Your task to perform on an android device: toggle translation in the chrome app Image 0: 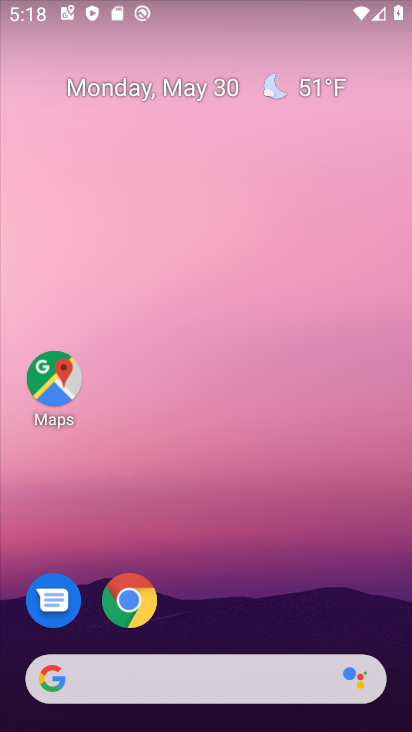
Step 0: drag from (157, 252) to (147, 42)
Your task to perform on an android device: toggle translation in the chrome app Image 1: 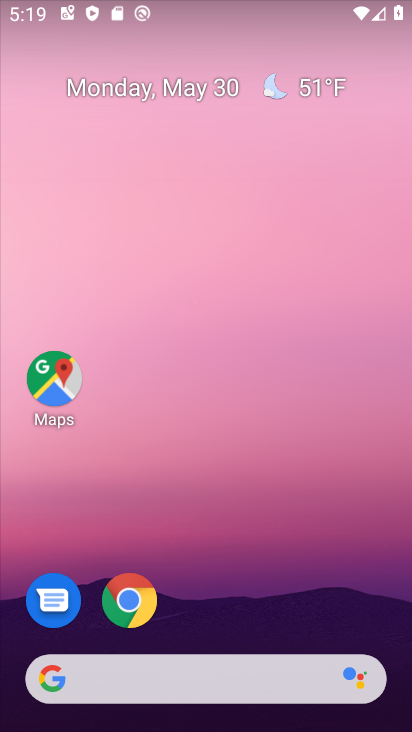
Step 1: drag from (232, 704) to (255, 6)
Your task to perform on an android device: toggle translation in the chrome app Image 2: 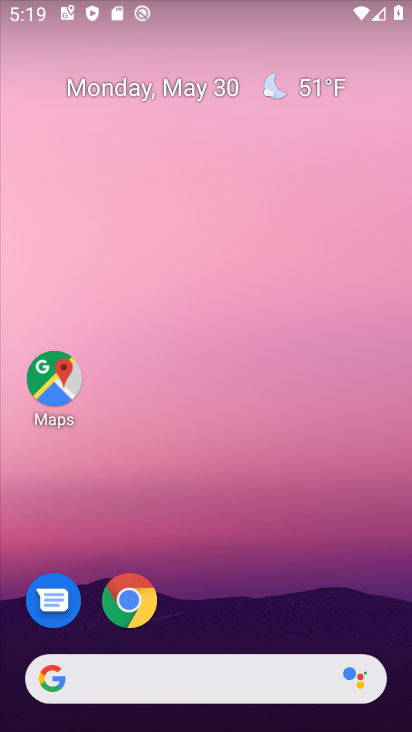
Step 2: drag from (199, 382) to (206, 21)
Your task to perform on an android device: toggle translation in the chrome app Image 3: 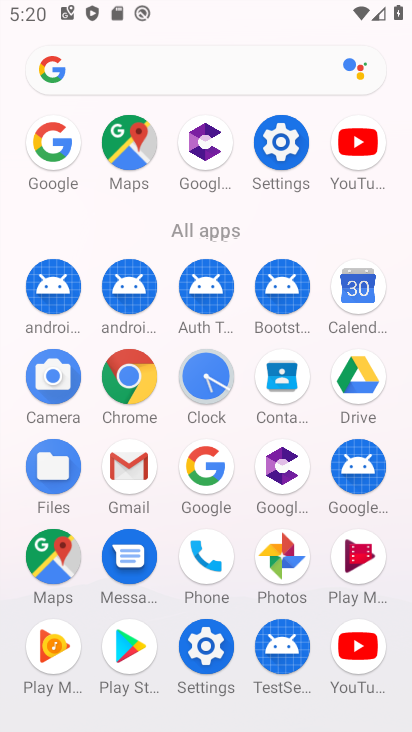
Step 3: click (124, 370)
Your task to perform on an android device: toggle translation in the chrome app Image 4: 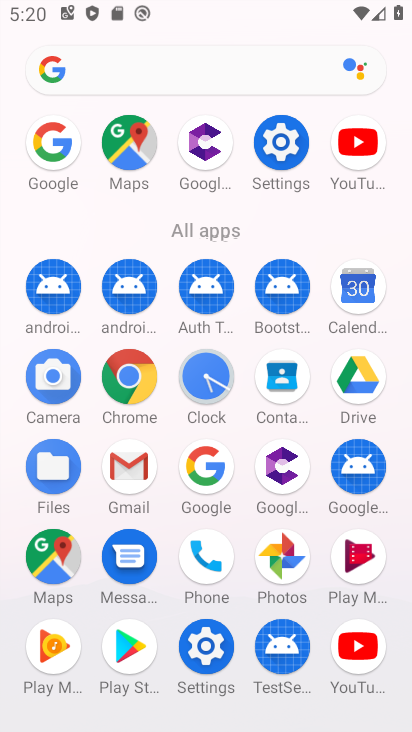
Step 4: click (125, 370)
Your task to perform on an android device: toggle translation in the chrome app Image 5: 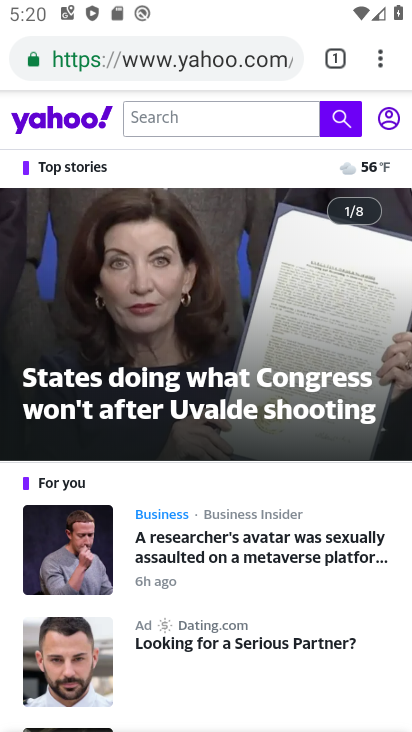
Step 5: click (375, 61)
Your task to perform on an android device: toggle translation in the chrome app Image 6: 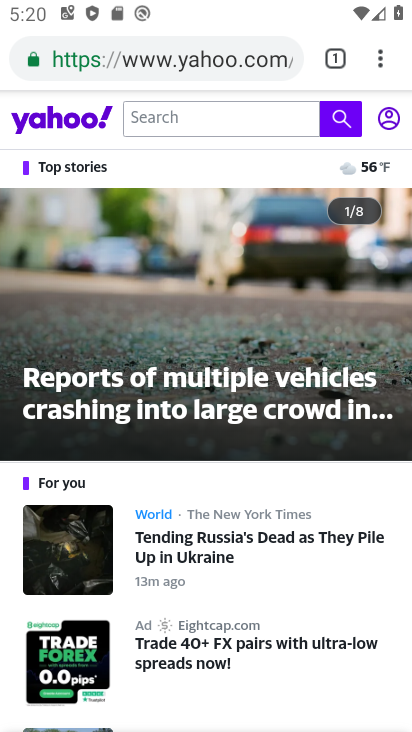
Step 6: drag from (379, 61) to (186, 639)
Your task to perform on an android device: toggle translation in the chrome app Image 7: 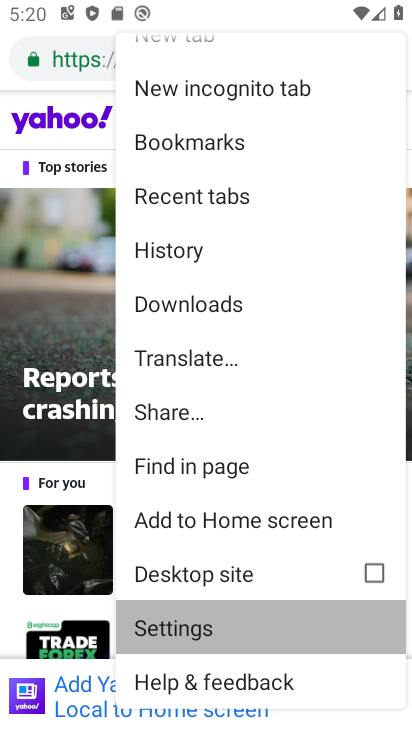
Step 7: click (188, 639)
Your task to perform on an android device: toggle translation in the chrome app Image 8: 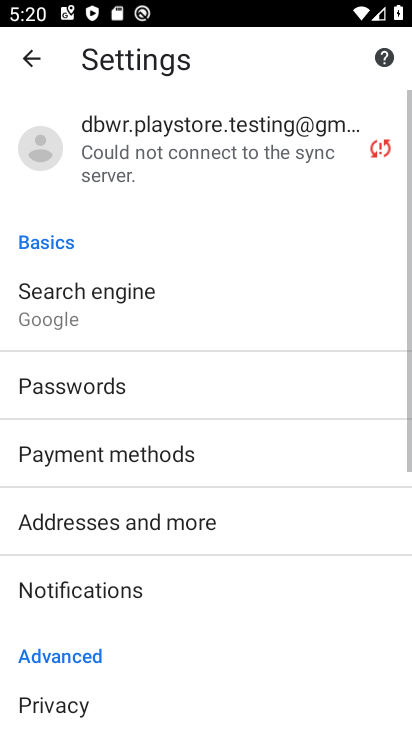
Step 8: drag from (121, 540) to (55, 264)
Your task to perform on an android device: toggle translation in the chrome app Image 9: 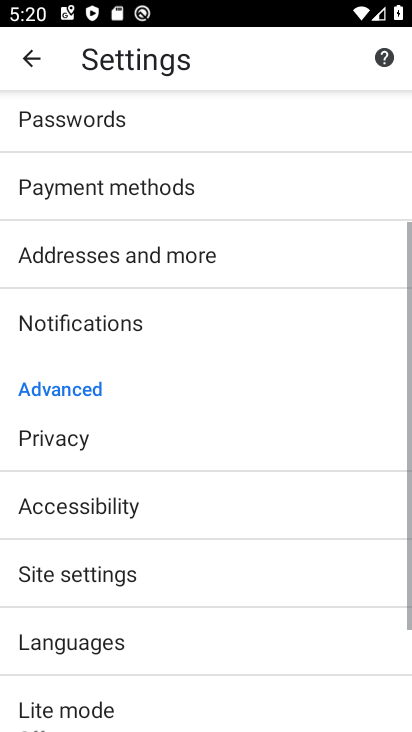
Step 9: drag from (148, 465) to (104, 173)
Your task to perform on an android device: toggle translation in the chrome app Image 10: 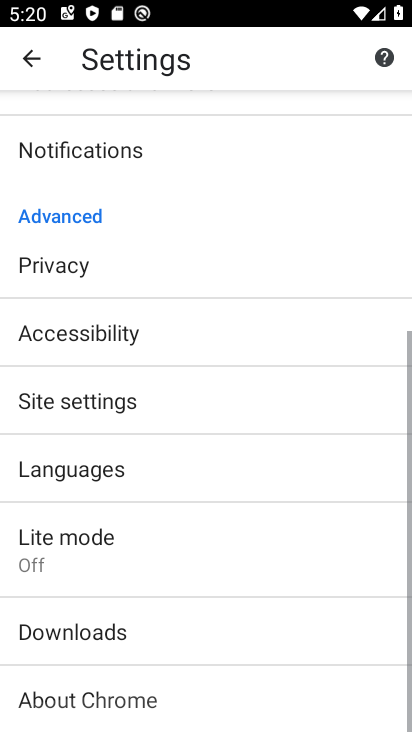
Step 10: drag from (121, 355) to (91, 73)
Your task to perform on an android device: toggle translation in the chrome app Image 11: 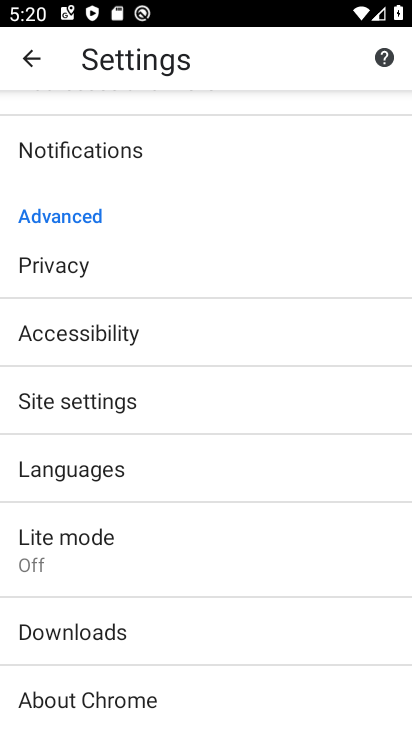
Step 11: click (73, 461)
Your task to perform on an android device: toggle translation in the chrome app Image 12: 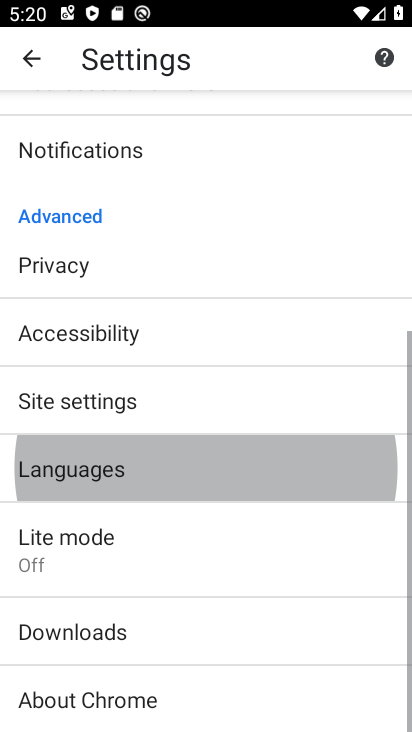
Step 12: click (73, 461)
Your task to perform on an android device: toggle translation in the chrome app Image 13: 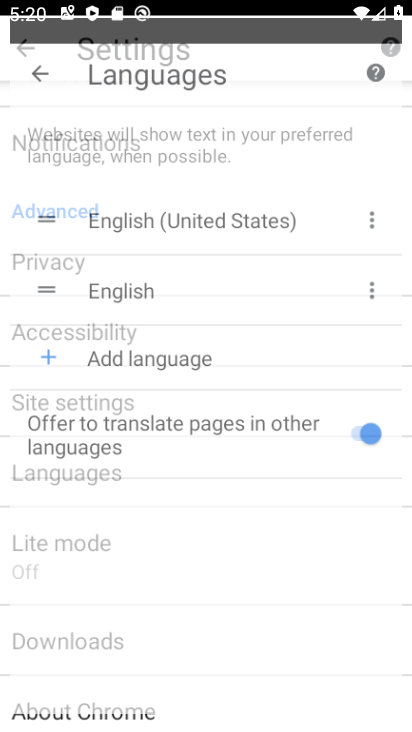
Step 13: click (73, 461)
Your task to perform on an android device: toggle translation in the chrome app Image 14: 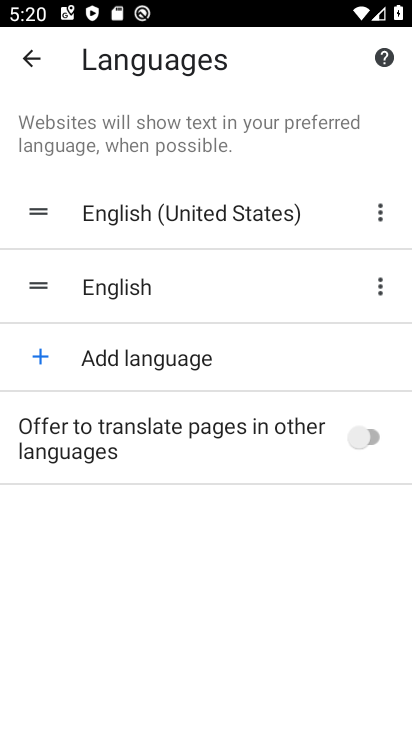
Step 14: task complete